Your task to perform on an android device: toggle airplane mode Image 0: 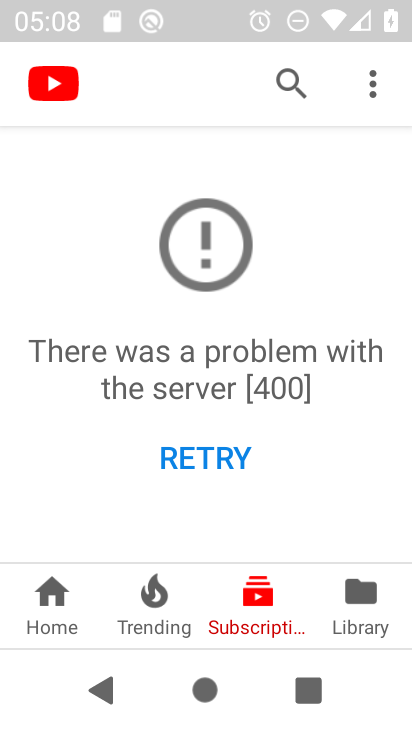
Step 0: drag from (231, 17) to (121, 578)
Your task to perform on an android device: toggle airplane mode Image 1: 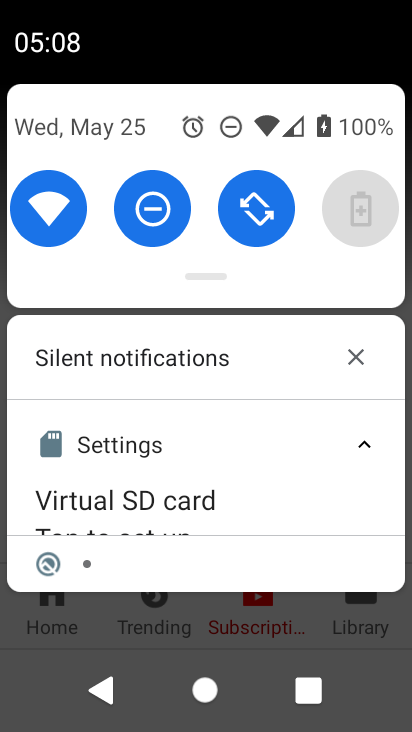
Step 1: drag from (259, 143) to (406, 581)
Your task to perform on an android device: toggle airplane mode Image 2: 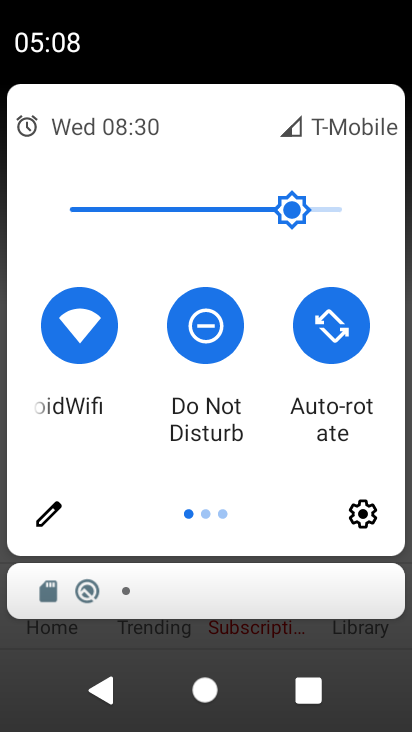
Step 2: drag from (371, 398) to (9, 428)
Your task to perform on an android device: toggle airplane mode Image 3: 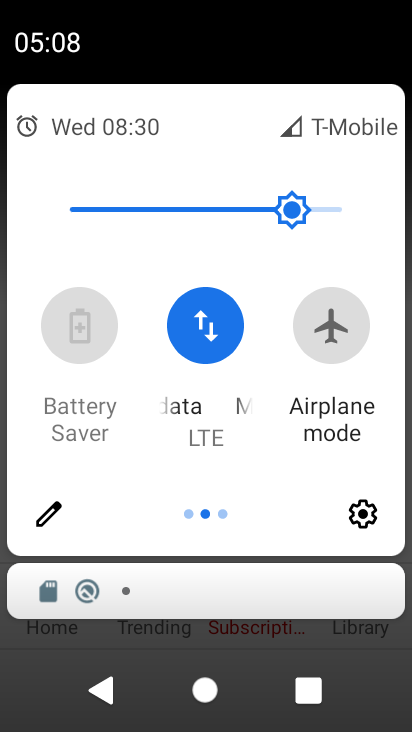
Step 3: click (324, 326)
Your task to perform on an android device: toggle airplane mode Image 4: 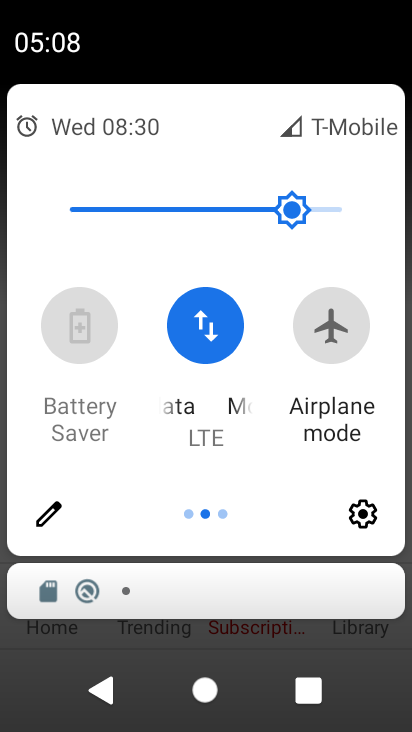
Step 4: click (324, 326)
Your task to perform on an android device: toggle airplane mode Image 5: 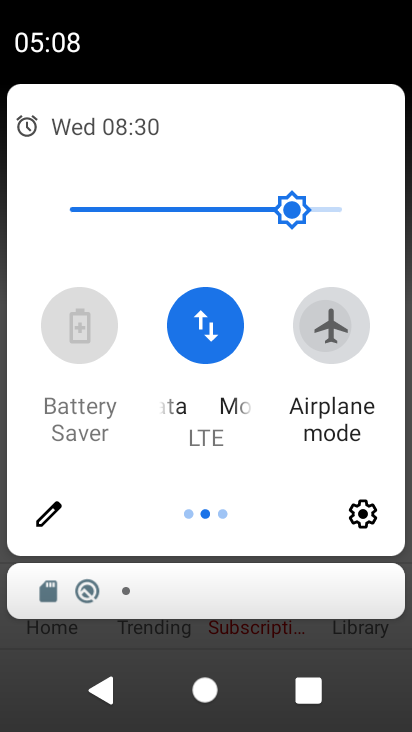
Step 5: click (324, 326)
Your task to perform on an android device: toggle airplane mode Image 6: 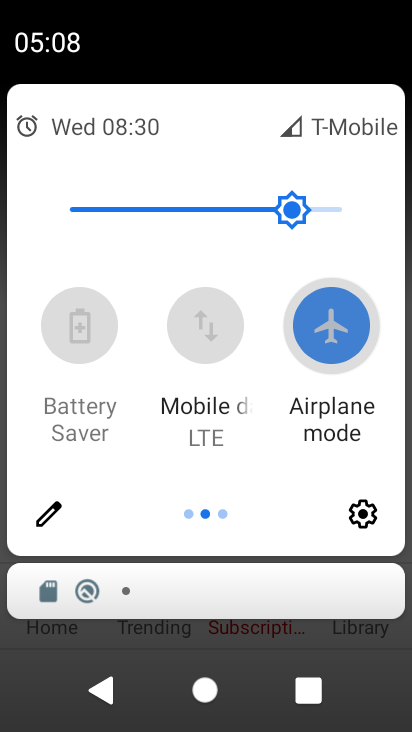
Step 6: click (324, 326)
Your task to perform on an android device: toggle airplane mode Image 7: 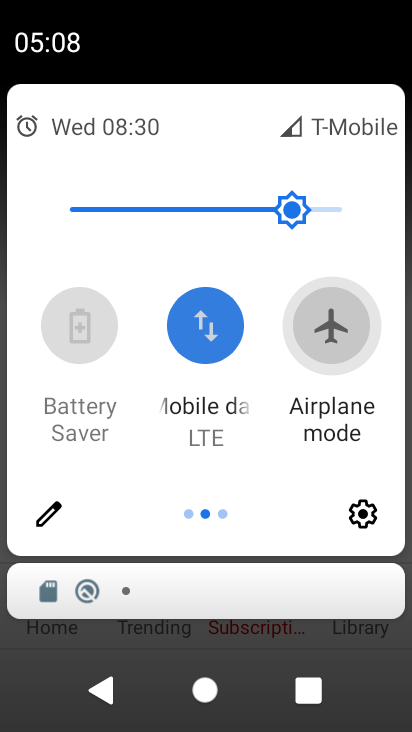
Step 7: click (324, 326)
Your task to perform on an android device: toggle airplane mode Image 8: 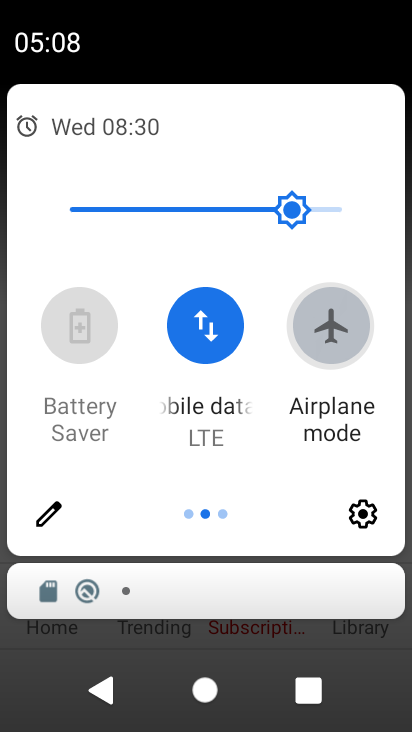
Step 8: click (324, 326)
Your task to perform on an android device: toggle airplane mode Image 9: 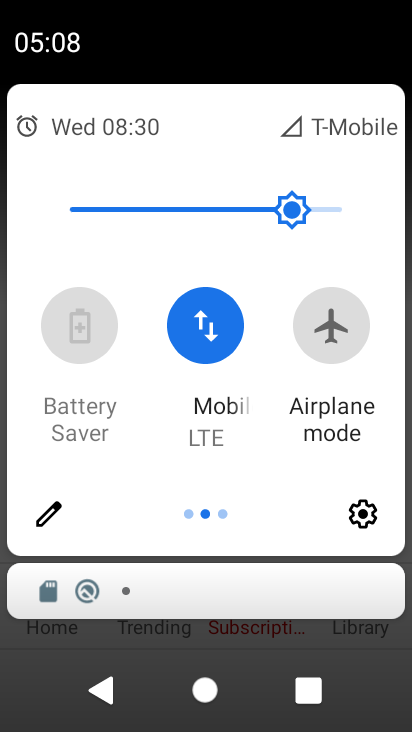
Step 9: task complete